Your task to perform on an android device: find which apps use the phone's location Image 0: 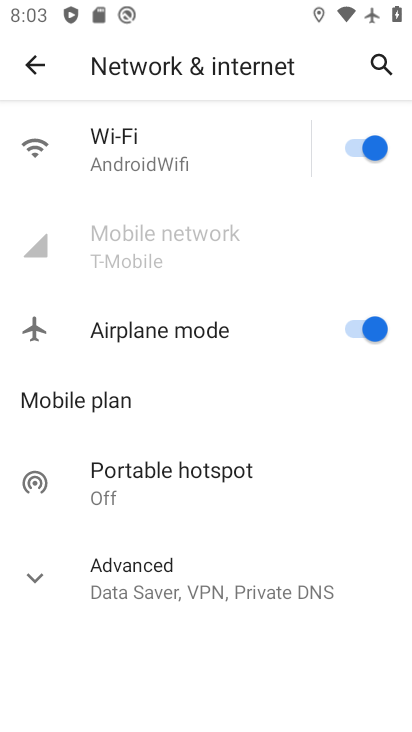
Step 0: press home button
Your task to perform on an android device: find which apps use the phone's location Image 1: 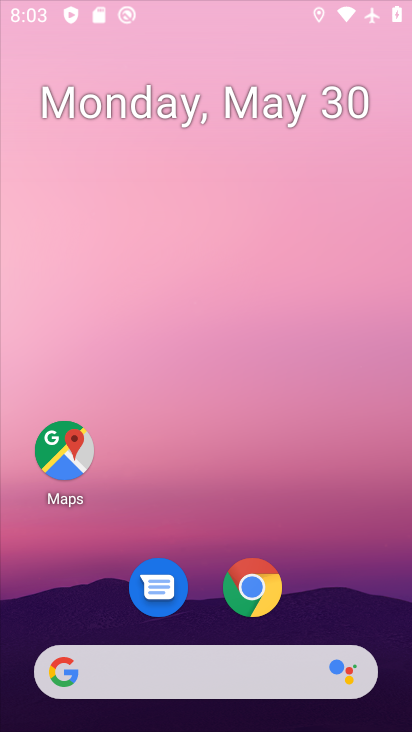
Step 1: press home button
Your task to perform on an android device: find which apps use the phone's location Image 2: 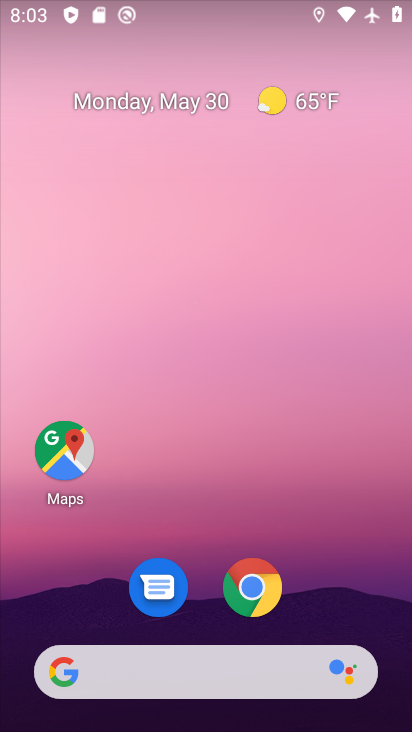
Step 2: drag from (142, 671) to (293, 29)
Your task to perform on an android device: find which apps use the phone's location Image 3: 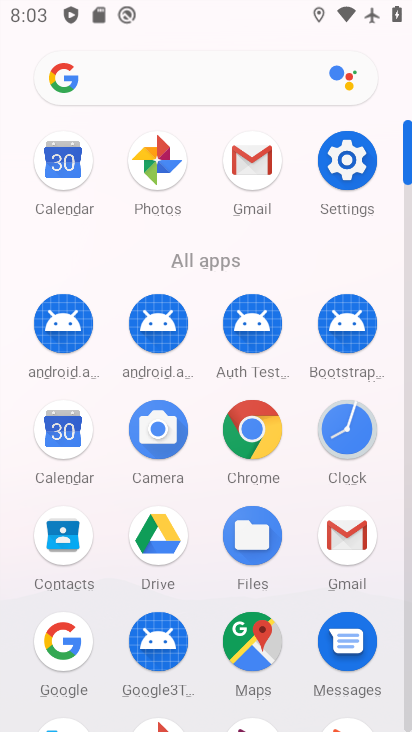
Step 3: click (353, 177)
Your task to perform on an android device: find which apps use the phone's location Image 4: 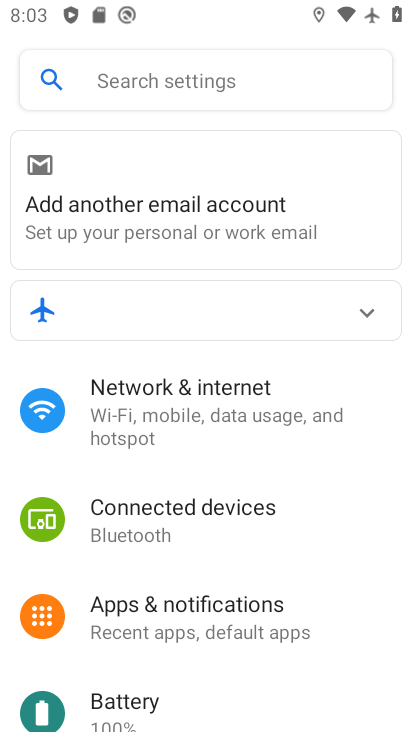
Step 4: drag from (250, 666) to (322, 81)
Your task to perform on an android device: find which apps use the phone's location Image 5: 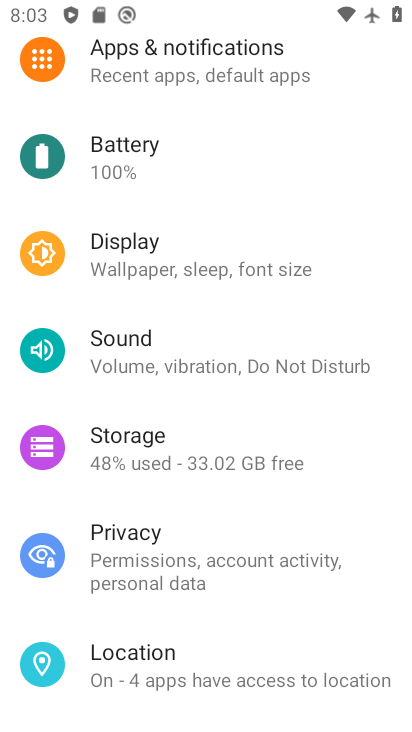
Step 5: click (160, 661)
Your task to perform on an android device: find which apps use the phone's location Image 6: 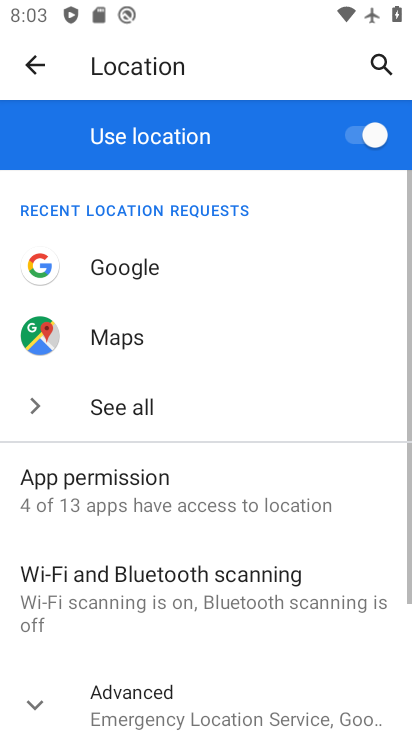
Step 6: click (130, 488)
Your task to perform on an android device: find which apps use the phone's location Image 7: 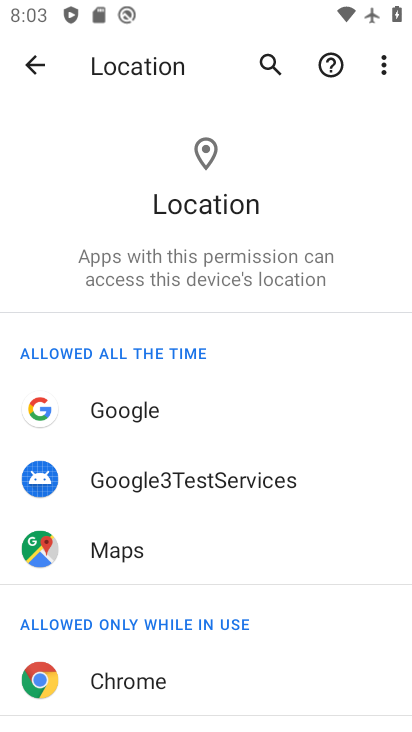
Step 7: drag from (260, 650) to (344, 111)
Your task to perform on an android device: find which apps use the phone's location Image 8: 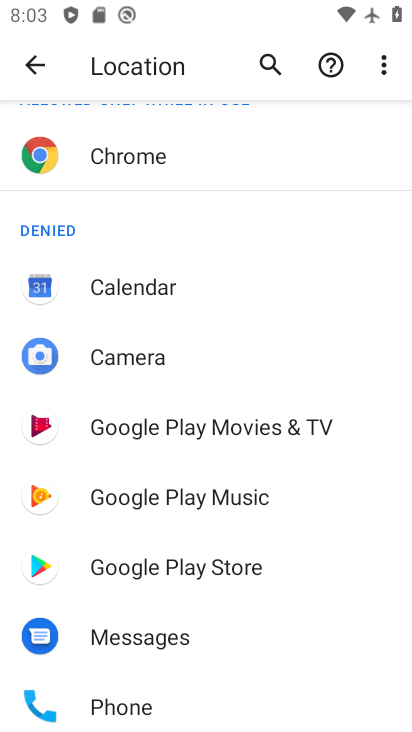
Step 8: click (137, 702)
Your task to perform on an android device: find which apps use the phone's location Image 9: 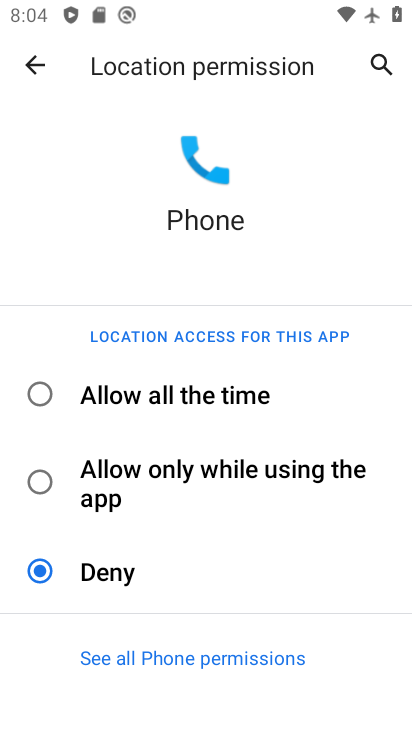
Step 9: task complete